Your task to perform on an android device: Open settings on Google Maps Image 0: 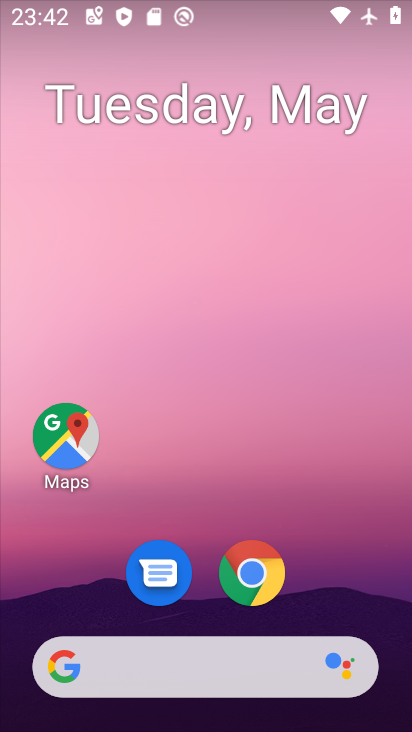
Step 0: drag from (321, 563) to (297, 221)
Your task to perform on an android device: Open settings on Google Maps Image 1: 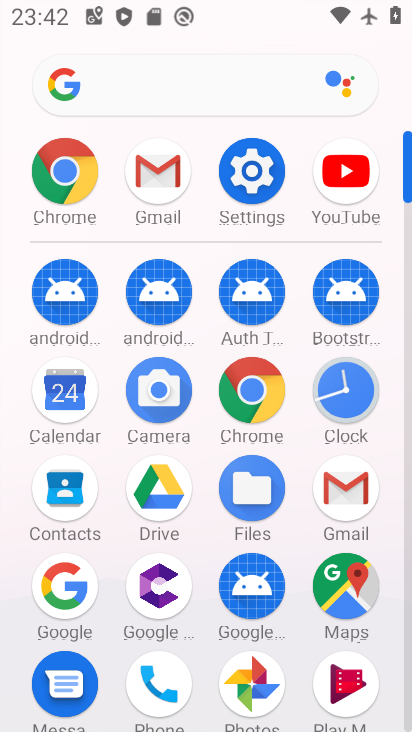
Step 1: click (339, 579)
Your task to perform on an android device: Open settings on Google Maps Image 2: 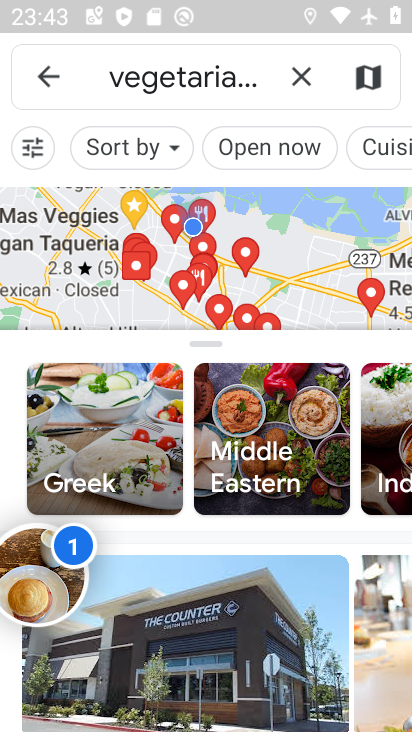
Step 2: task complete